Your task to perform on an android device: What's the weather today? Image 0: 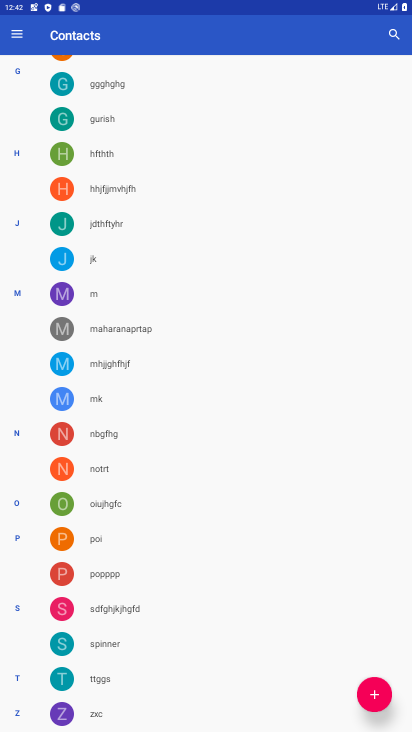
Step 0: press home button
Your task to perform on an android device: What's the weather today? Image 1: 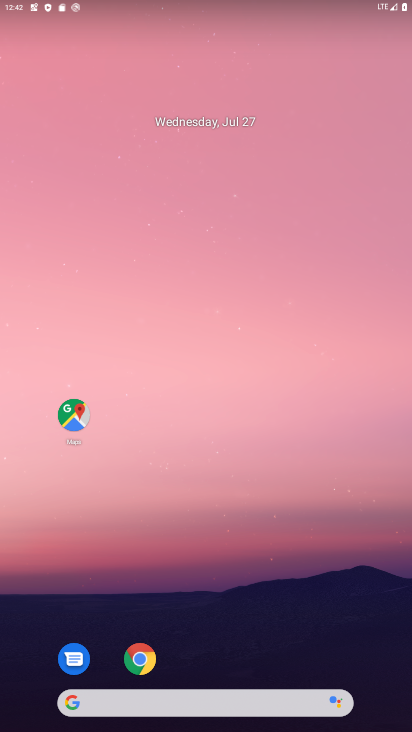
Step 1: click (144, 701)
Your task to perform on an android device: What's the weather today? Image 2: 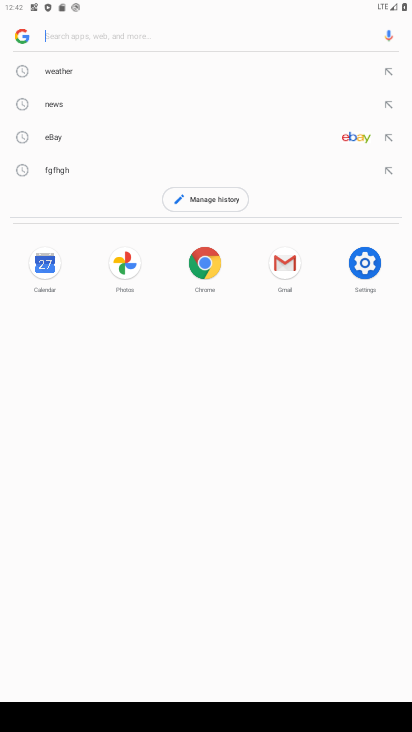
Step 2: click (73, 64)
Your task to perform on an android device: What's the weather today? Image 3: 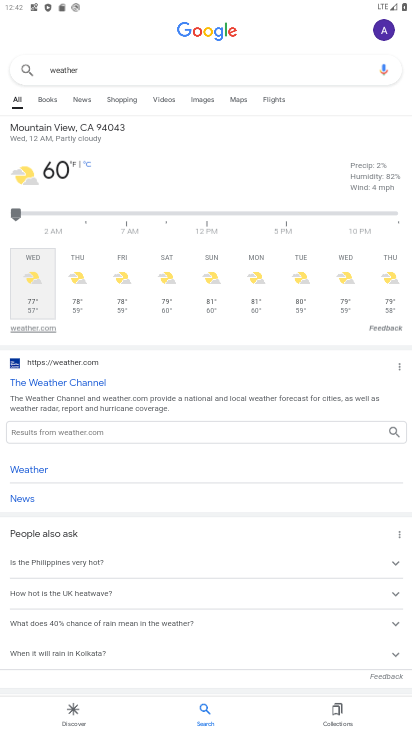
Step 3: click (32, 278)
Your task to perform on an android device: What's the weather today? Image 4: 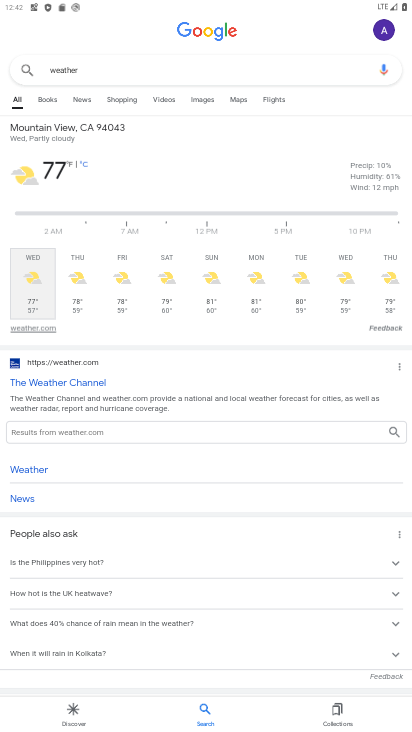
Step 4: click (31, 311)
Your task to perform on an android device: What's the weather today? Image 5: 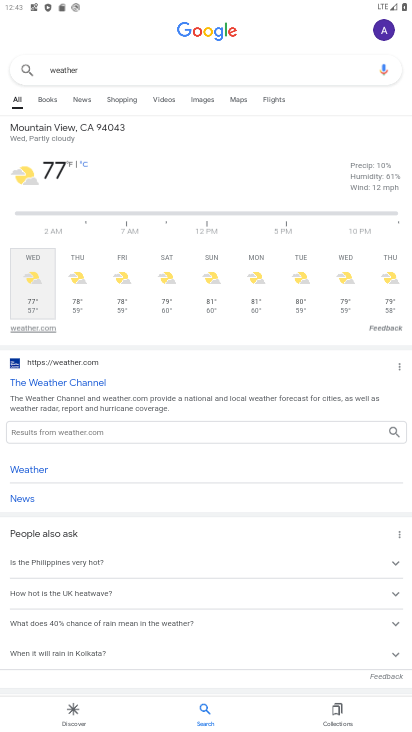
Step 5: task complete